Your task to perform on an android device: Turn off the flashlight Image 0: 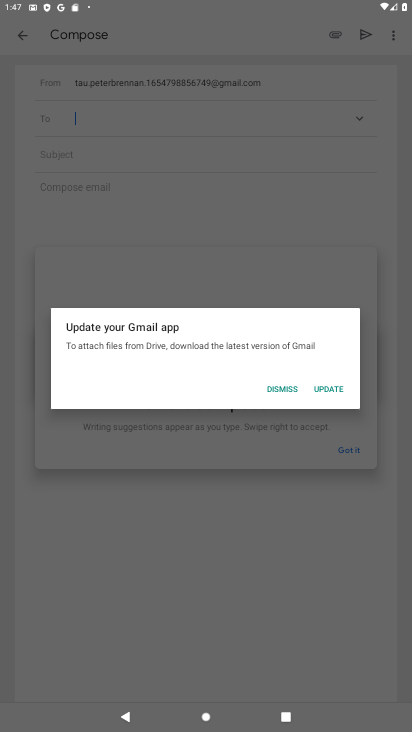
Step 0: press home button
Your task to perform on an android device: Turn off the flashlight Image 1: 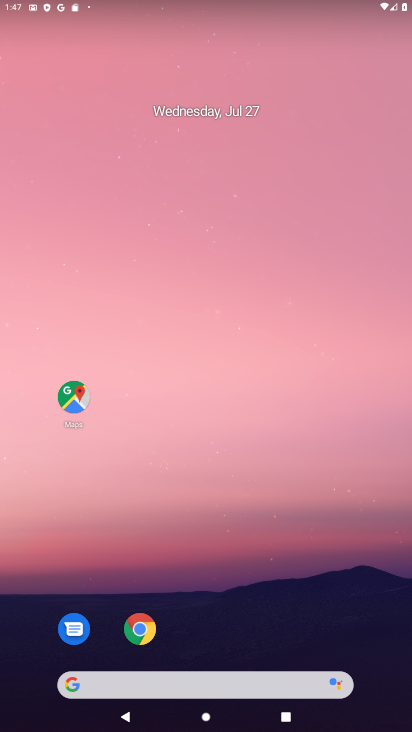
Step 1: drag from (269, 650) to (223, 246)
Your task to perform on an android device: Turn off the flashlight Image 2: 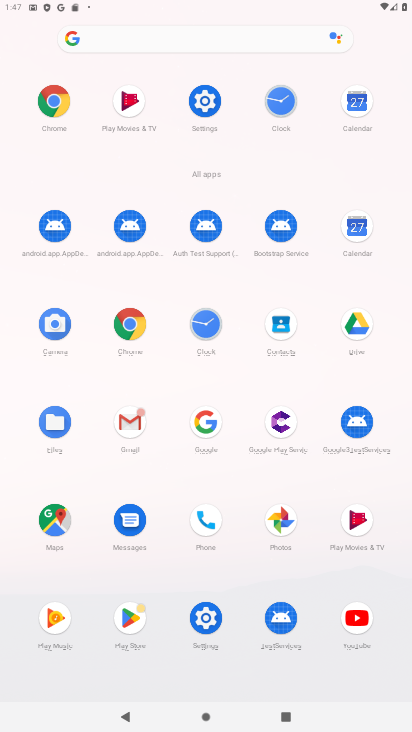
Step 2: click (206, 112)
Your task to perform on an android device: Turn off the flashlight Image 3: 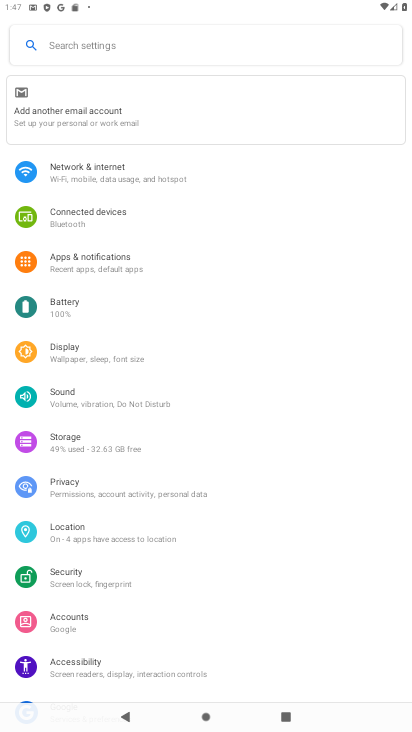
Step 3: task complete